Your task to perform on an android device: create a new album in the google photos Image 0: 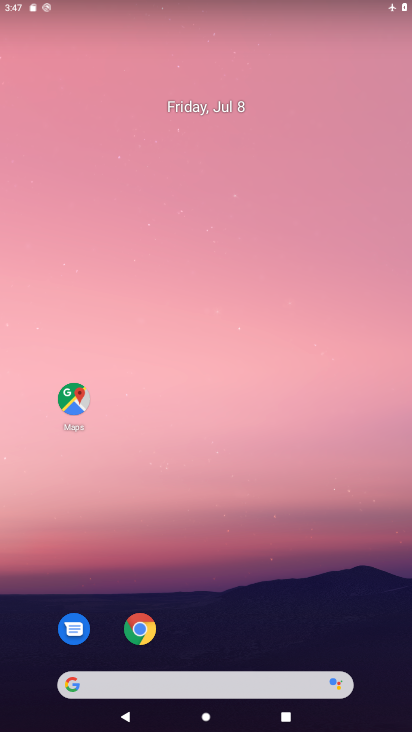
Step 0: drag from (240, 588) to (219, 136)
Your task to perform on an android device: create a new album in the google photos Image 1: 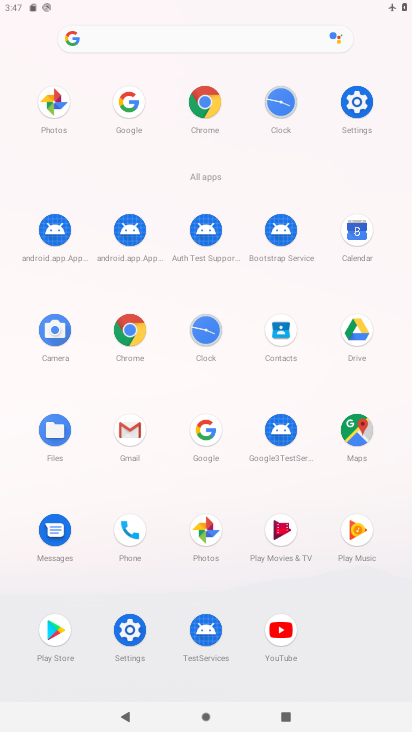
Step 1: click (207, 520)
Your task to perform on an android device: create a new album in the google photos Image 2: 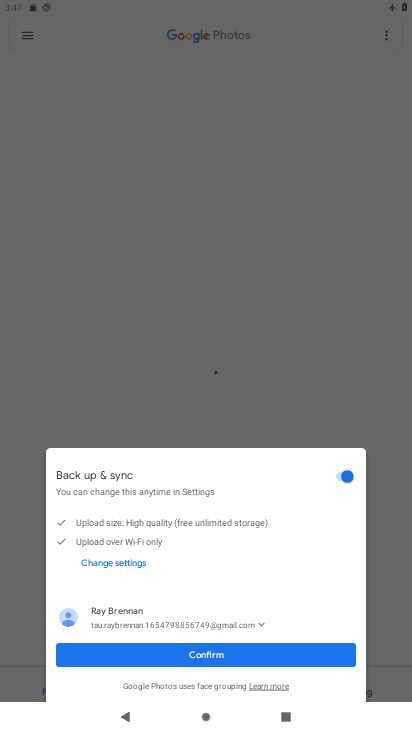
Step 2: click (197, 647)
Your task to perform on an android device: create a new album in the google photos Image 3: 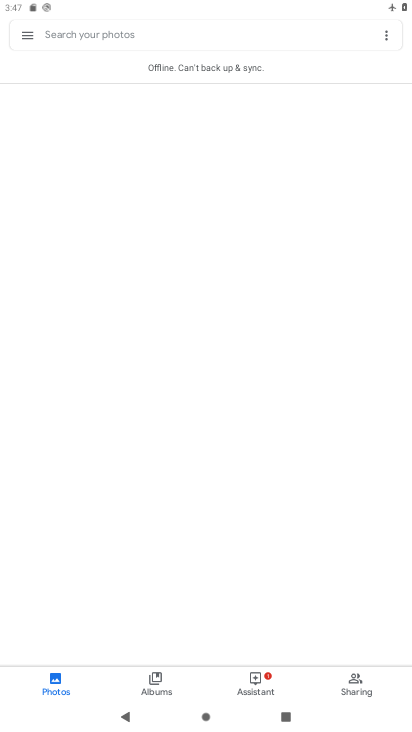
Step 3: click (150, 684)
Your task to perform on an android device: create a new album in the google photos Image 4: 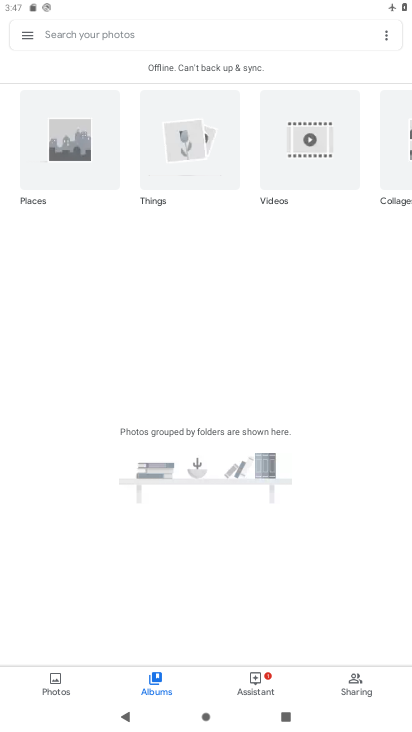
Step 4: task complete